Your task to perform on an android device: turn off data saver in the chrome app Image 0: 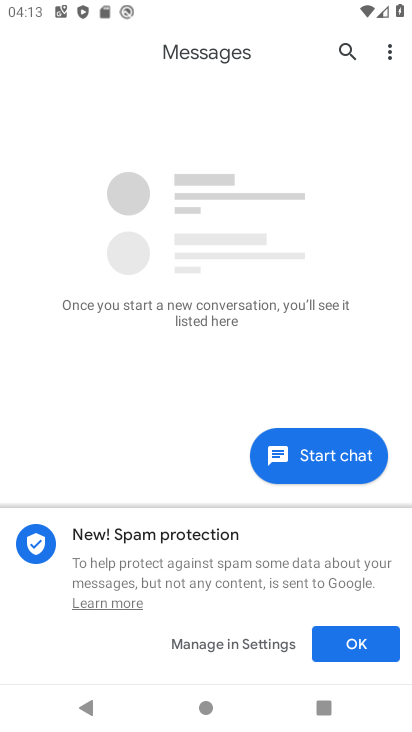
Step 0: press home button
Your task to perform on an android device: turn off data saver in the chrome app Image 1: 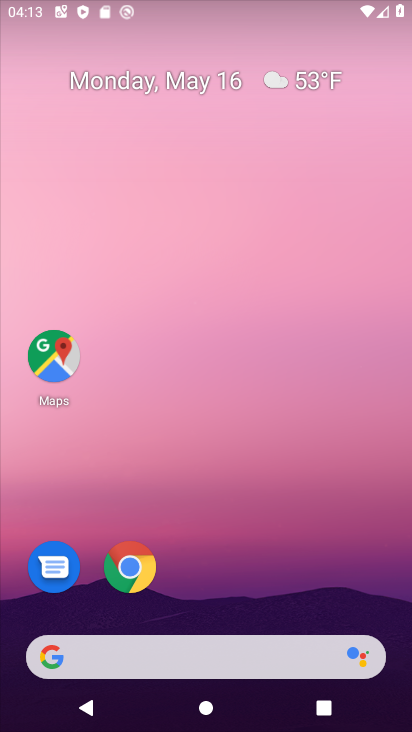
Step 1: drag from (316, 708) to (347, 90)
Your task to perform on an android device: turn off data saver in the chrome app Image 2: 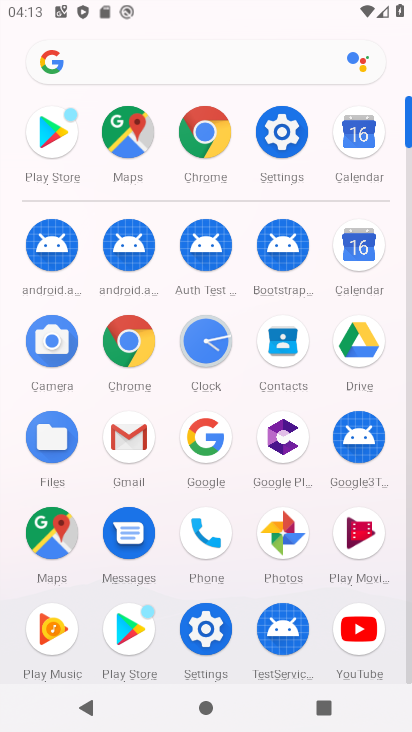
Step 2: click (288, 120)
Your task to perform on an android device: turn off data saver in the chrome app Image 3: 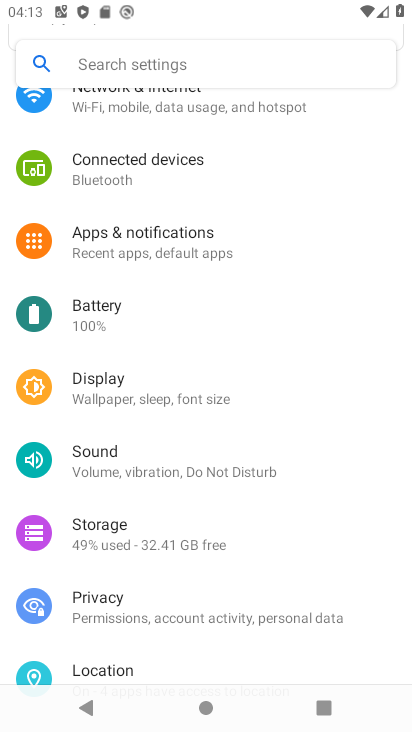
Step 3: drag from (212, 184) to (218, 494)
Your task to perform on an android device: turn off data saver in the chrome app Image 4: 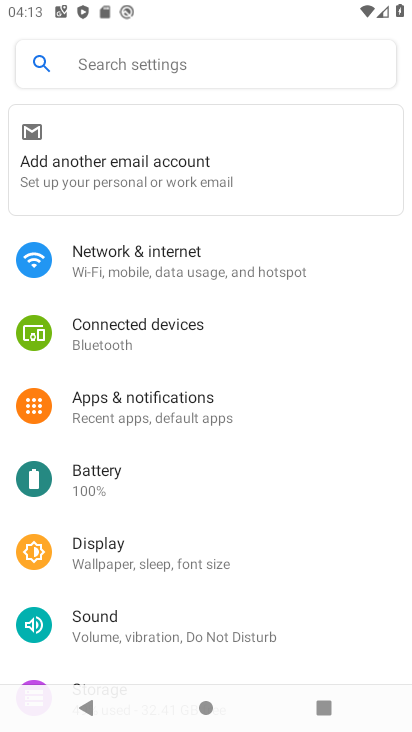
Step 4: click (172, 421)
Your task to perform on an android device: turn off data saver in the chrome app Image 5: 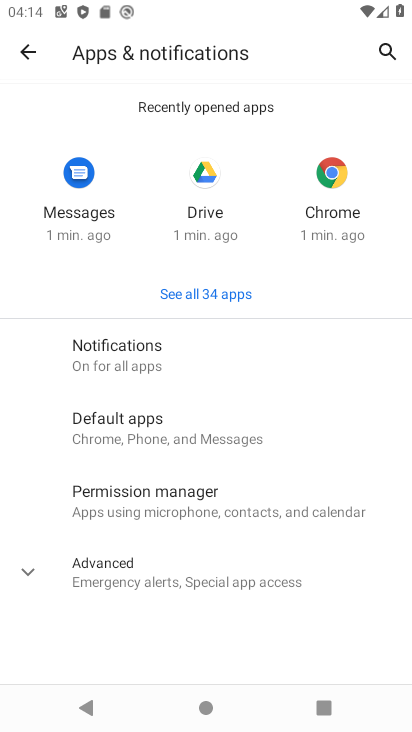
Step 5: drag from (233, 618) to (230, 366)
Your task to perform on an android device: turn off data saver in the chrome app Image 6: 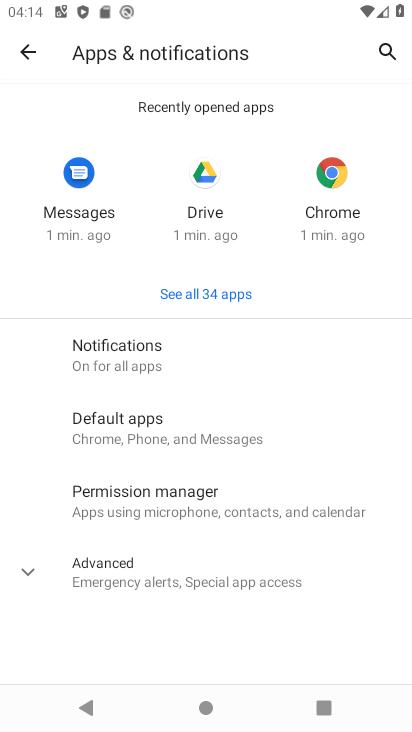
Step 6: press home button
Your task to perform on an android device: turn off data saver in the chrome app Image 7: 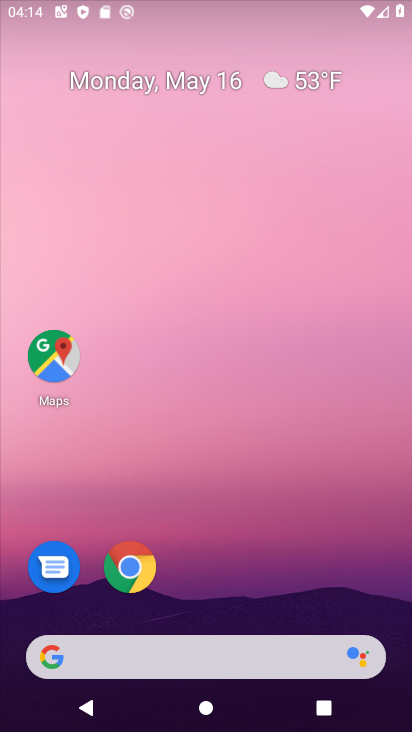
Step 7: drag from (254, 702) to (269, 125)
Your task to perform on an android device: turn off data saver in the chrome app Image 8: 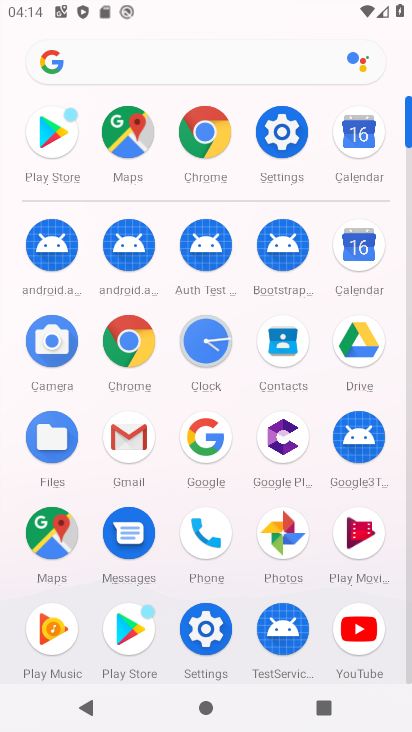
Step 8: click (139, 338)
Your task to perform on an android device: turn off data saver in the chrome app Image 9: 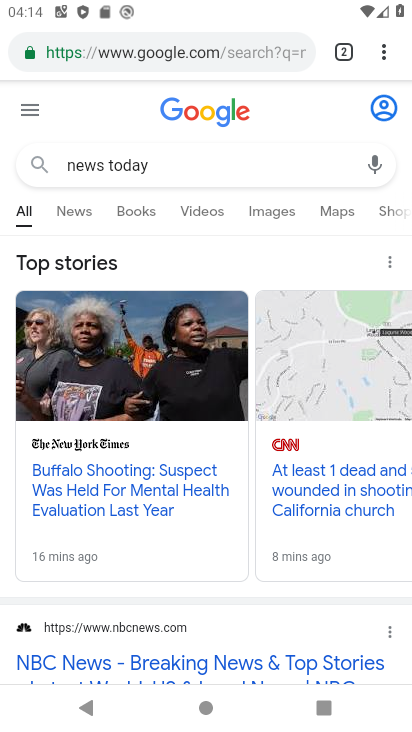
Step 9: click (390, 42)
Your task to perform on an android device: turn off data saver in the chrome app Image 10: 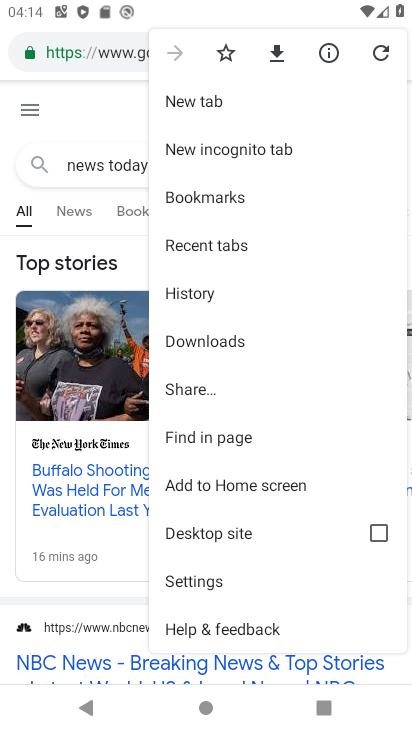
Step 10: click (229, 582)
Your task to perform on an android device: turn off data saver in the chrome app Image 11: 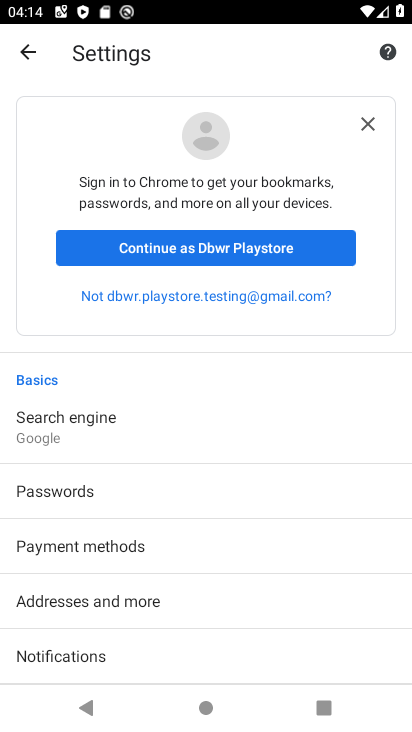
Step 11: drag from (228, 663) to (278, 124)
Your task to perform on an android device: turn off data saver in the chrome app Image 12: 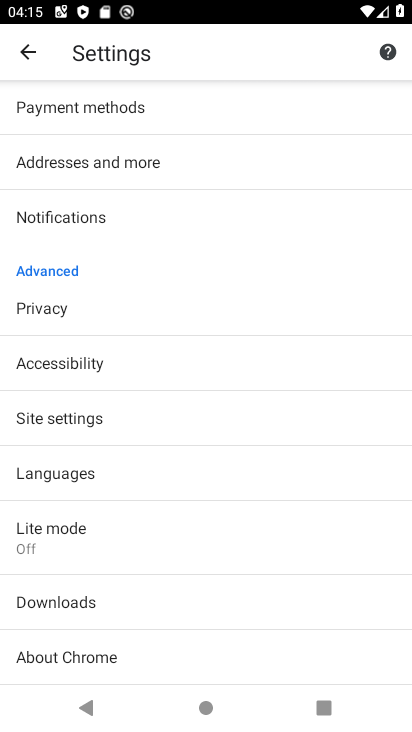
Step 12: click (119, 545)
Your task to perform on an android device: turn off data saver in the chrome app Image 13: 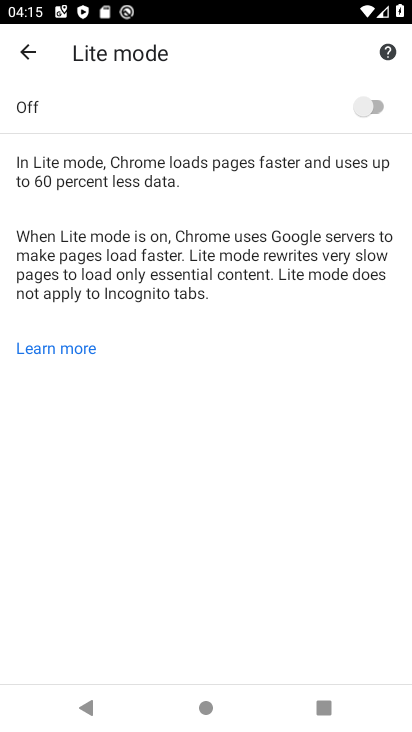
Step 13: task complete